Your task to perform on an android device: What's the weather going to be tomorrow? Image 0: 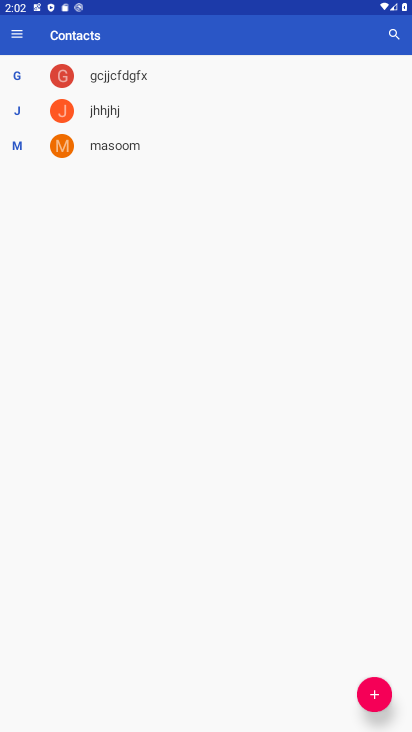
Step 0: press home button
Your task to perform on an android device: What's the weather going to be tomorrow? Image 1: 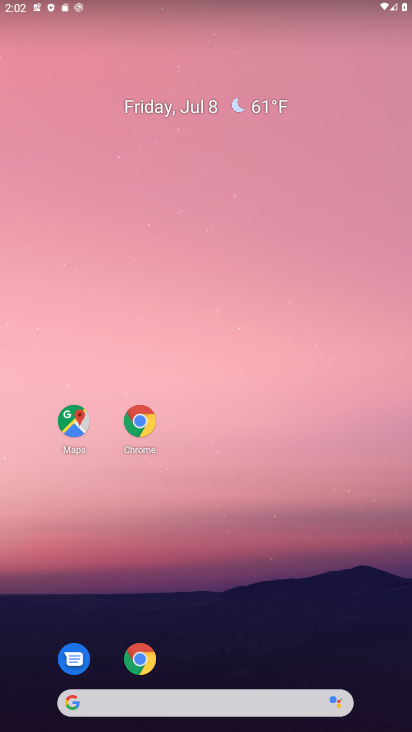
Step 1: drag from (226, 678) to (210, 24)
Your task to perform on an android device: What's the weather going to be tomorrow? Image 2: 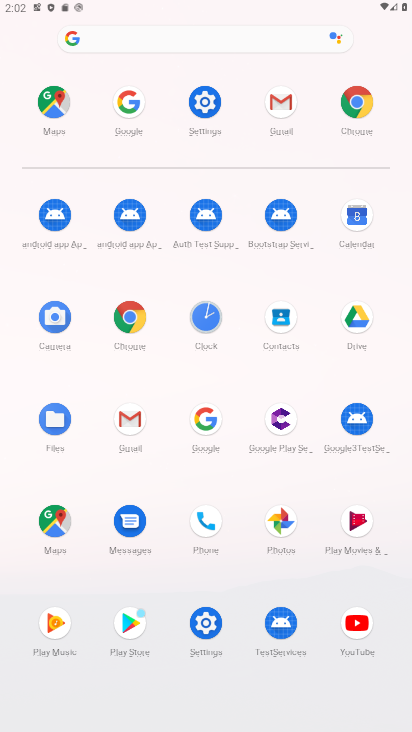
Step 2: click (201, 413)
Your task to perform on an android device: What's the weather going to be tomorrow? Image 3: 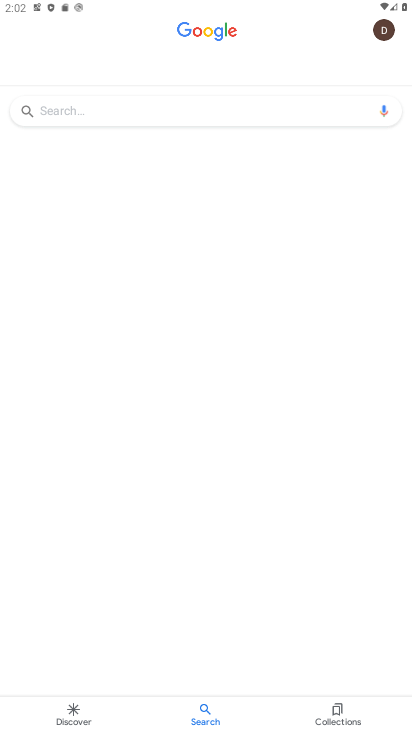
Step 3: click (161, 90)
Your task to perform on an android device: What's the weather going to be tomorrow? Image 4: 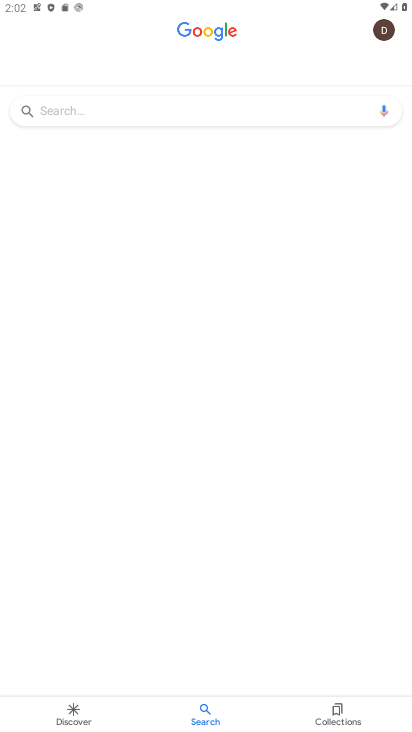
Step 4: click (144, 128)
Your task to perform on an android device: What's the weather going to be tomorrow? Image 5: 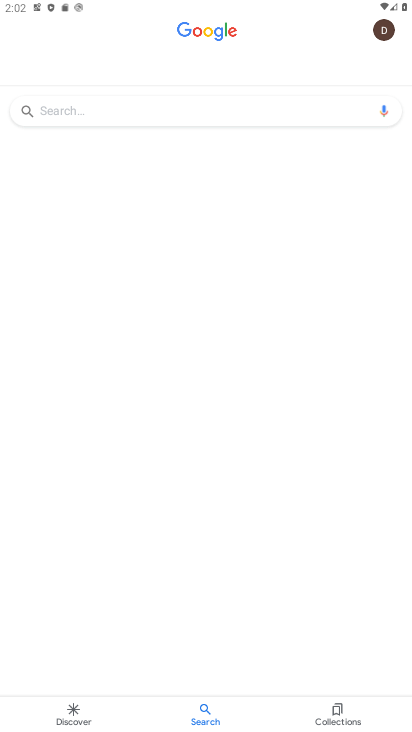
Step 5: click (143, 104)
Your task to perform on an android device: What's the weather going to be tomorrow? Image 6: 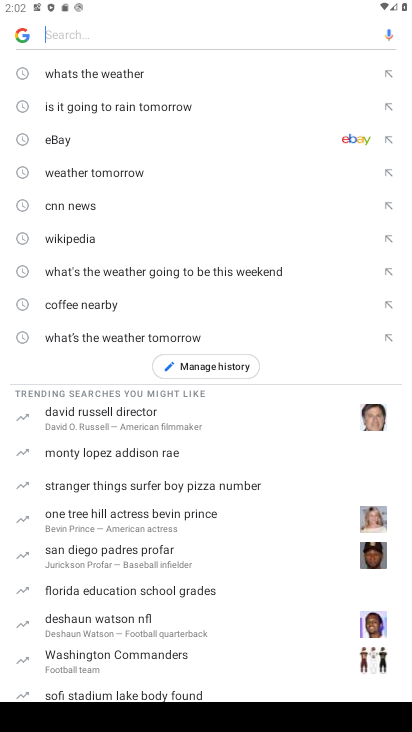
Step 6: click (83, 66)
Your task to perform on an android device: What's the weather going to be tomorrow? Image 7: 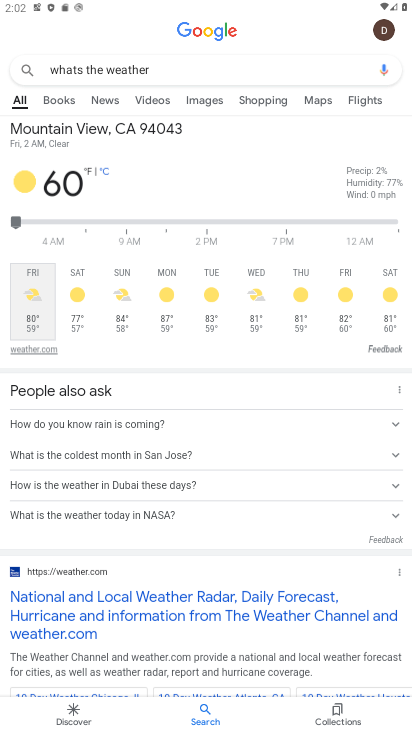
Step 7: click (68, 270)
Your task to perform on an android device: What's the weather going to be tomorrow? Image 8: 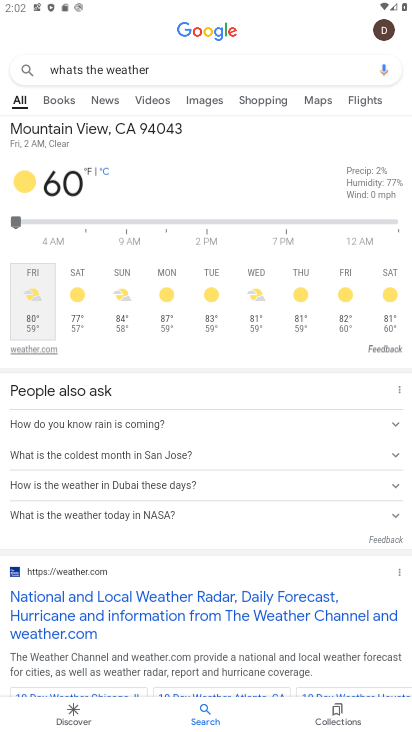
Step 8: drag from (124, 160) to (173, 517)
Your task to perform on an android device: What's the weather going to be tomorrow? Image 9: 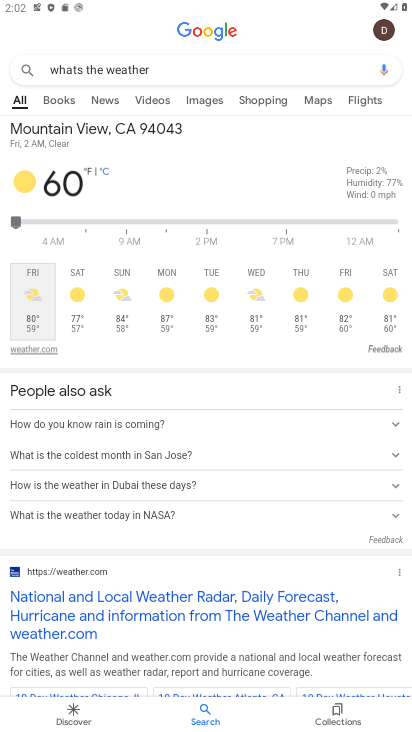
Step 9: click (71, 315)
Your task to perform on an android device: What's the weather going to be tomorrow? Image 10: 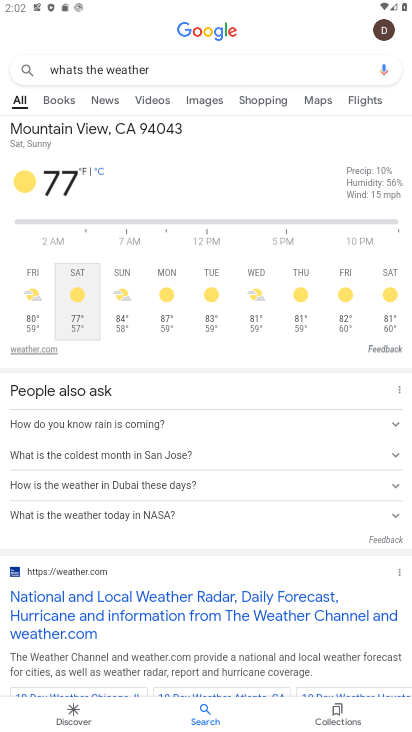
Step 10: task complete